Your task to perform on an android device: Open the phone app and click the voicemail tab. Image 0: 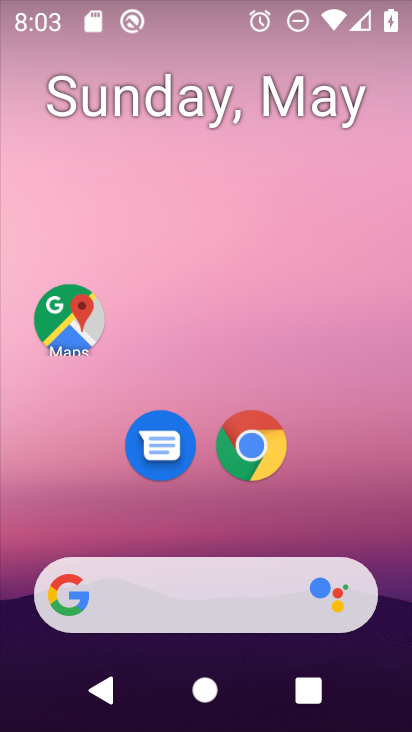
Step 0: click (160, 677)
Your task to perform on an android device: Open the phone app and click the voicemail tab. Image 1: 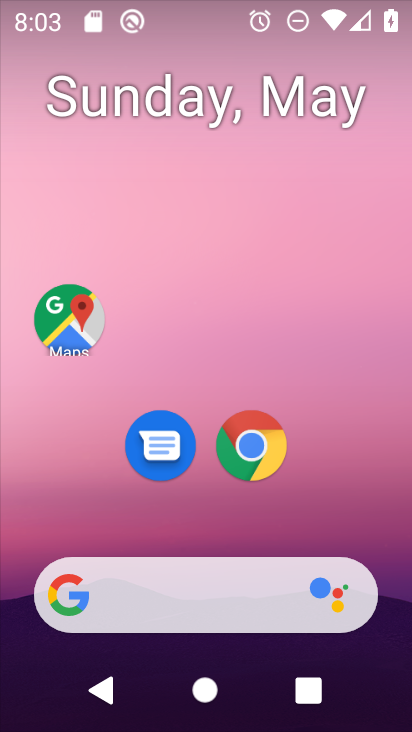
Step 1: drag from (157, 694) to (260, 35)
Your task to perform on an android device: Open the phone app and click the voicemail tab. Image 2: 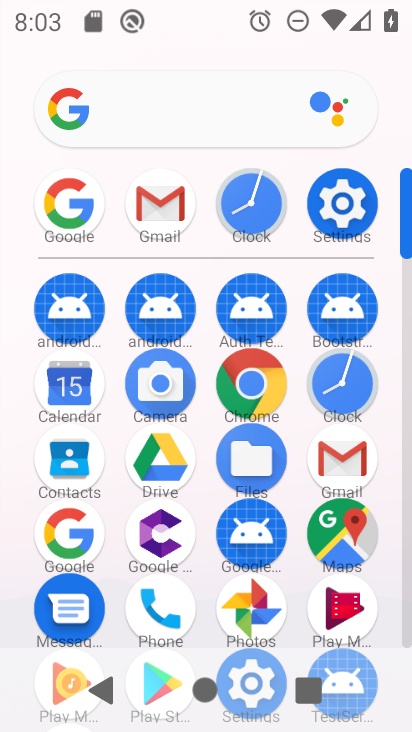
Step 2: drag from (203, 509) to (188, 237)
Your task to perform on an android device: Open the phone app and click the voicemail tab. Image 3: 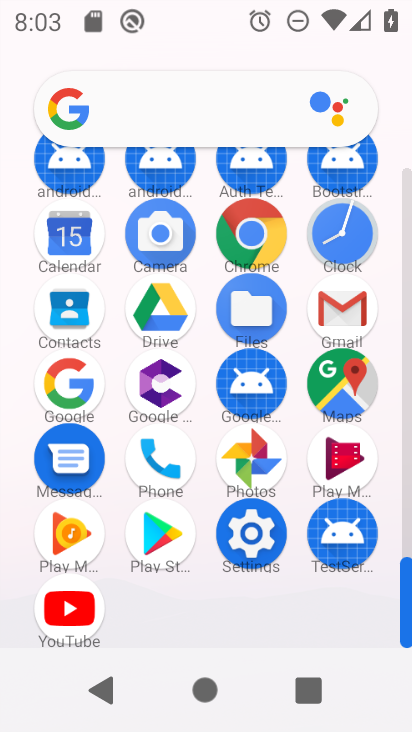
Step 3: click (161, 461)
Your task to perform on an android device: Open the phone app and click the voicemail tab. Image 4: 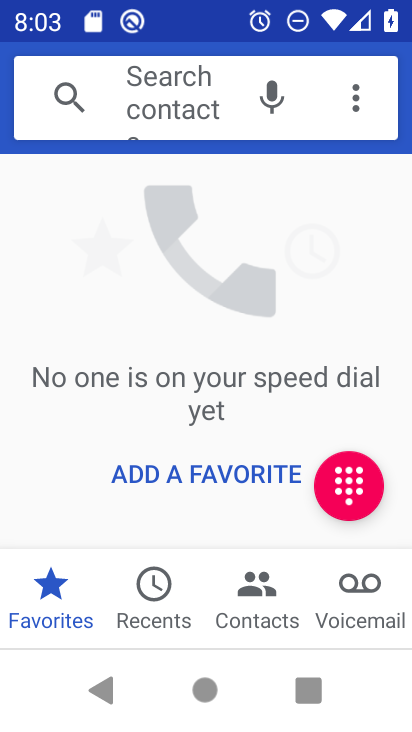
Step 4: click (363, 622)
Your task to perform on an android device: Open the phone app and click the voicemail tab. Image 5: 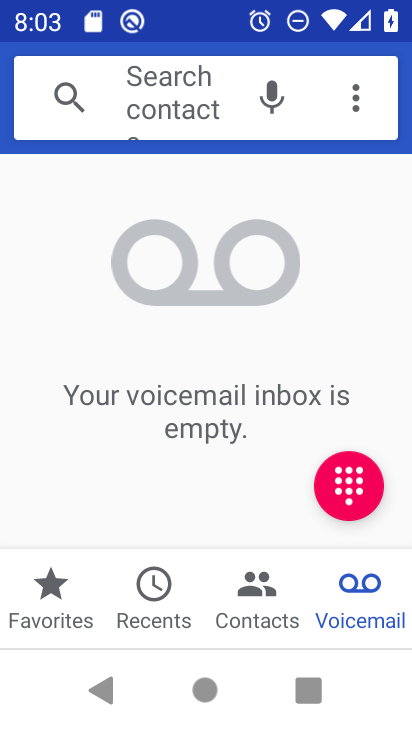
Step 5: task complete